Your task to perform on an android device: Go to display settings Image 0: 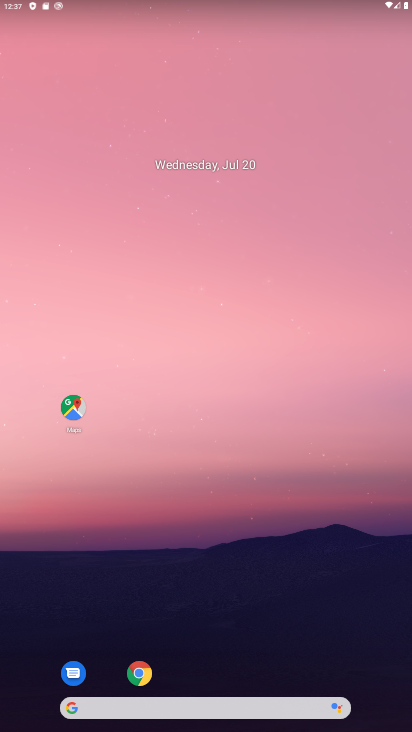
Step 0: drag from (182, 663) to (215, 246)
Your task to perform on an android device: Go to display settings Image 1: 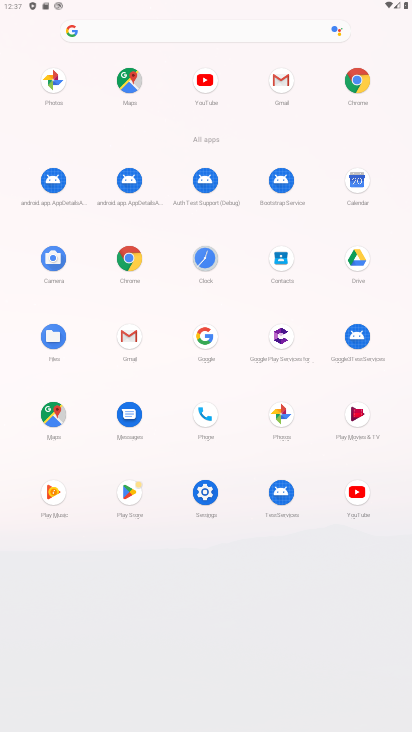
Step 1: click (208, 494)
Your task to perform on an android device: Go to display settings Image 2: 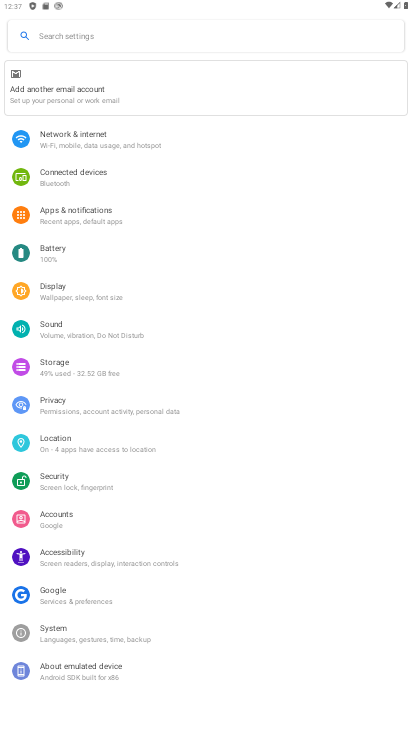
Step 2: click (87, 290)
Your task to perform on an android device: Go to display settings Image 3: 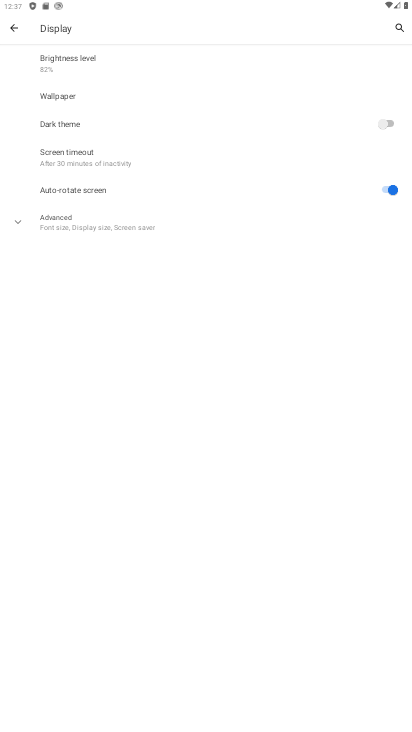
Step 3: task complete